Your task to perform on an android device: change the clock style Image 0: 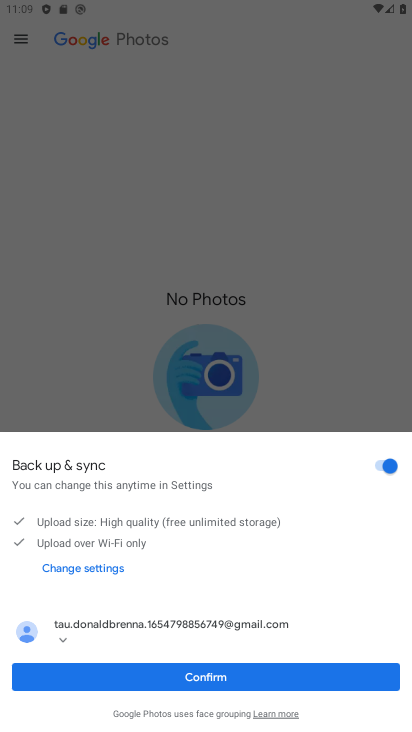
Step 0: press home button
Your task to perform on an android device: change the clock style Image 1: 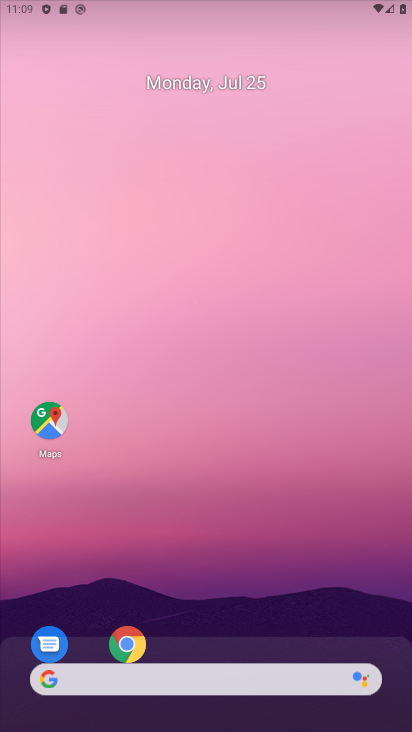
Step 1: drag from (266, 644) to (264, 186)
Your task to perform on an android device: change the clock style Image 2: 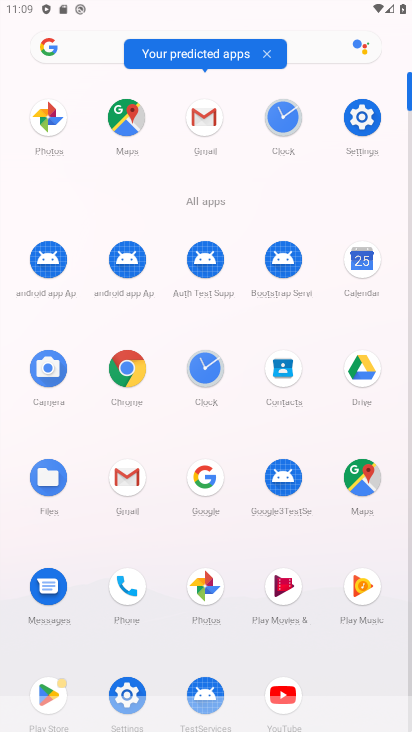
Step 2: click (205, 369)
Your task to perform on an android device: change the clock style Image 3: 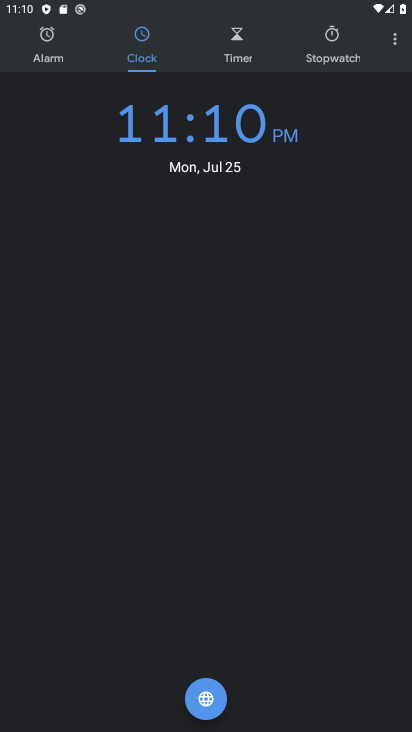
Step 3: click (394, 39)
Your task to perform on an android device: change the clock style Image 4: 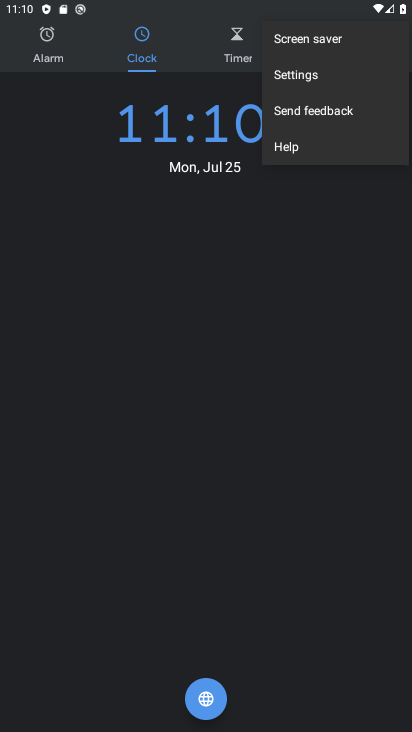
Step 4: click (315, 78)
Your task to perform on an android device: change the clock style Image 5: 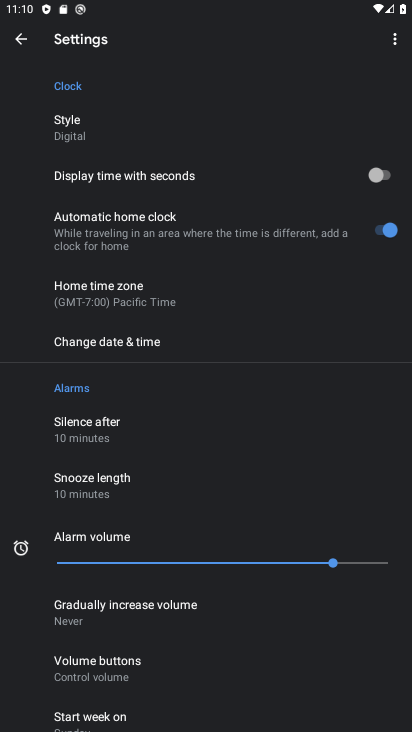
Step 5: click (57, 123)
Your task to perform on an android device: change the clock style Image 6: 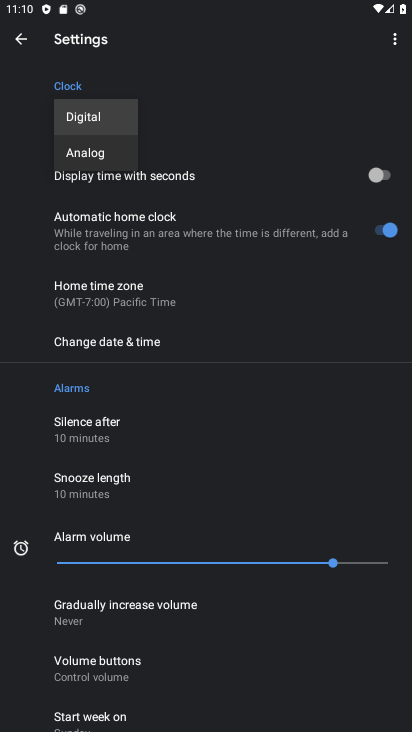
Step 6: click (94, 150)
Your task to perform on an android device: change the clock style Image 7: 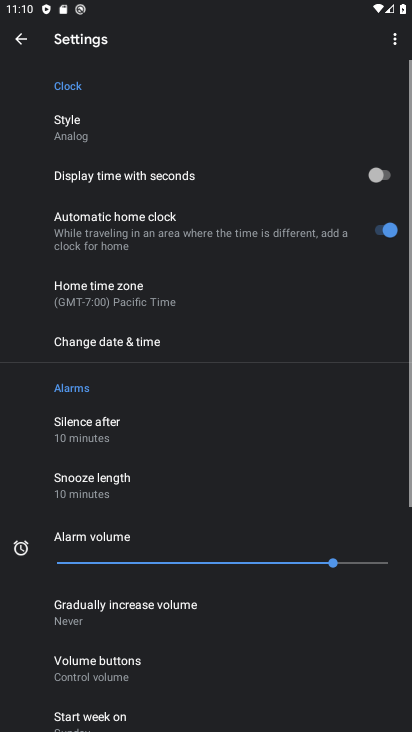
Step 7: task complete